Your task to perform on an android device: What's on my calendar today? Image 0: 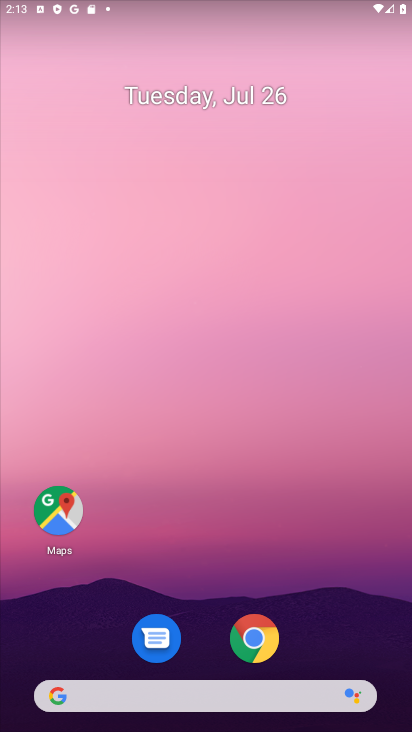
Step 0: drag from (203, 721) to (269, 153)
Your task to perform on an android device: What's on my calendar today? Image 1: 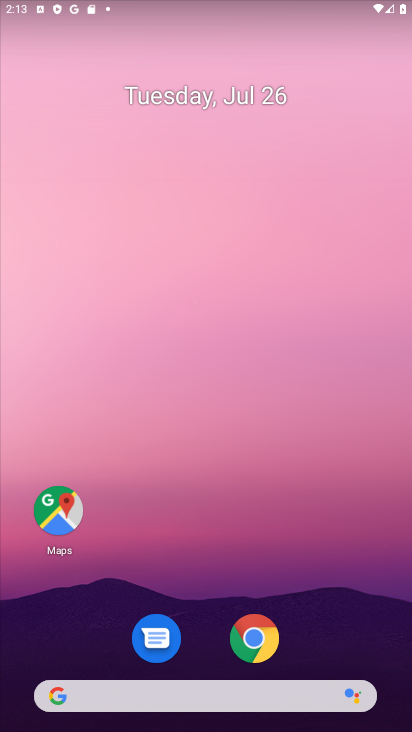
Step 1: drag from (238, 694) to (249, 28)
Your task to perform on an android device: What's on my calendar today? Image 2: 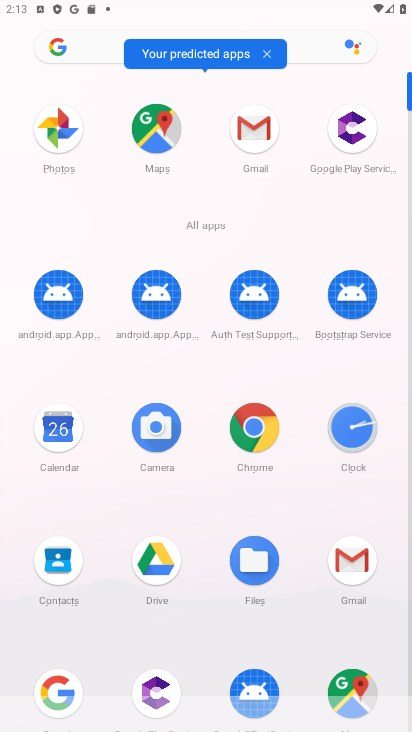
Step 2: click (65, 457)
Your task to perform on an android device: What's on my calendar today? Image 3: 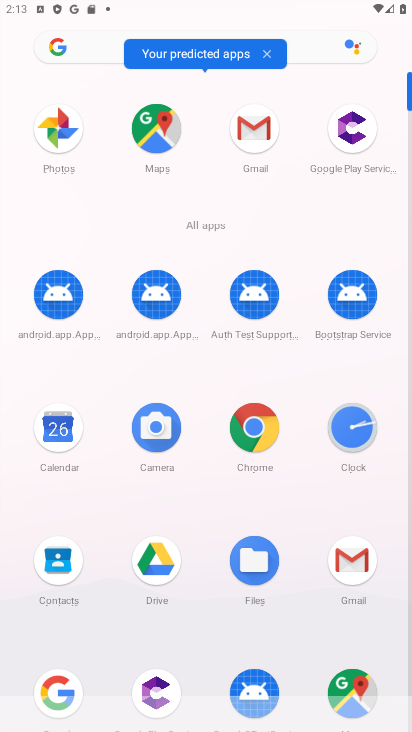
Step 3: click (65, 457)
Your task to perform on an android device: What's on my calendar today? Image 4: 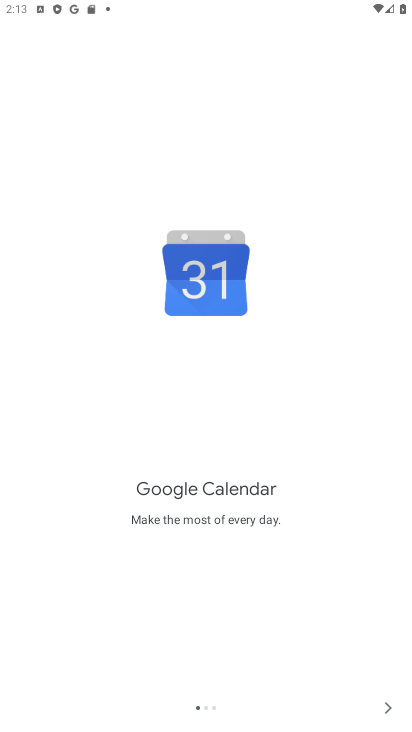
Step 4: click (383, 702)
Your task to perform on an android device: What's on my calendar today? Image 5: 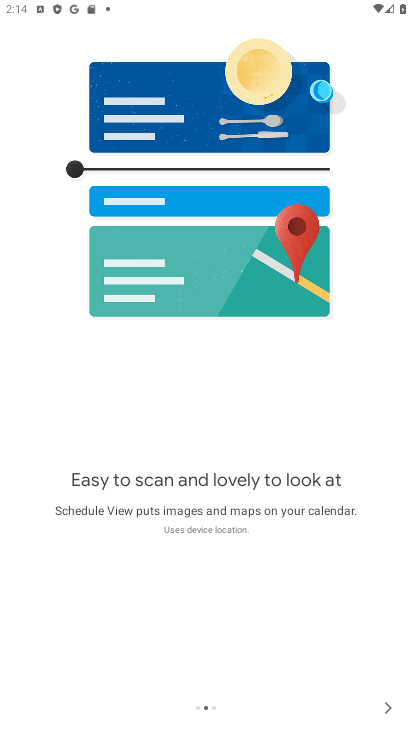
Step 5: click (385, 704)
Your task to perform on an android device: What's on my calendar today? Image 6: 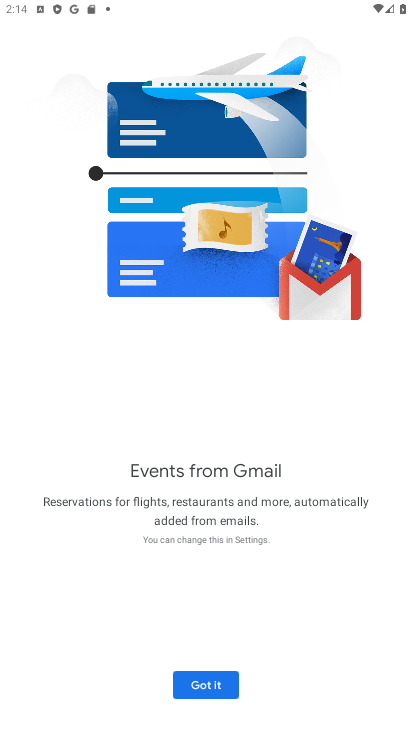
Step 6: click (227, 682)
Your task to perform on an android device: What's on my calendar today? Image 7: 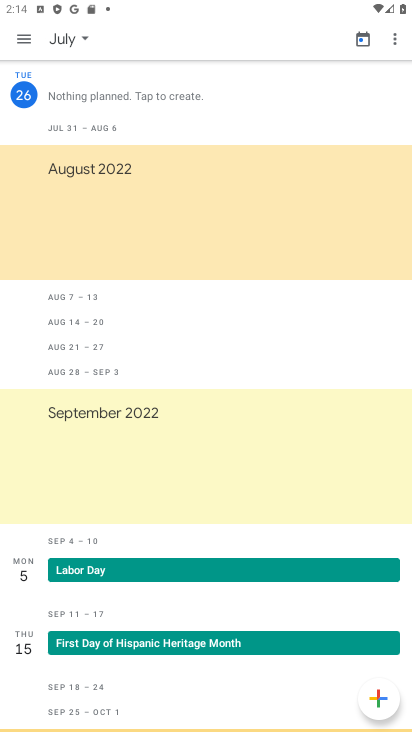
Step 7: click (62, 37)
Your task to perform on an android device: What's on my calendar today? Image 8: 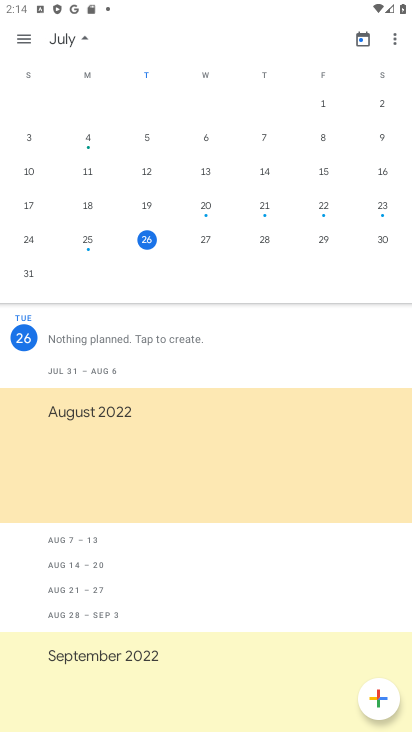
Step 8: task complete